Your task to perform on an android device: set an alarm Image 0: 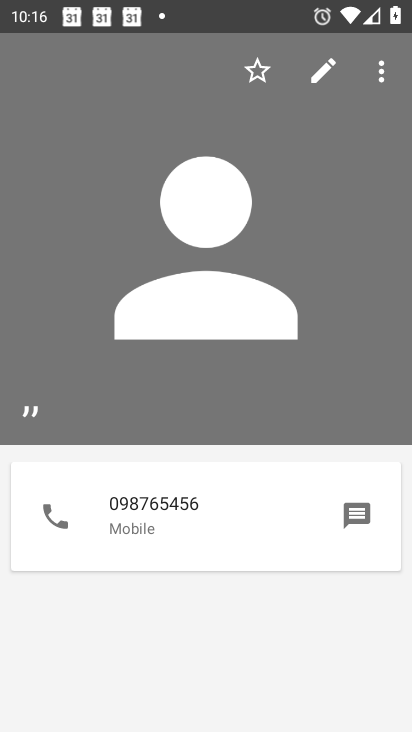
Step 0: press home button
Your task to perform on an android device: set an alarm Image 1: 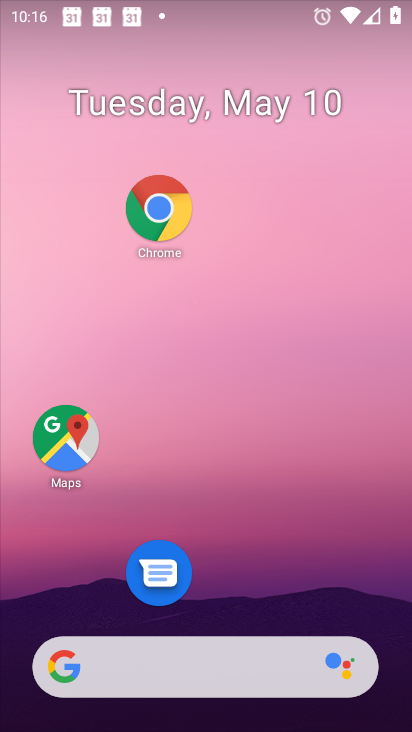
Step 1: drag from (238, 710) to (307, 259)
Your task to perform on an android device: set an alarm Image 2: 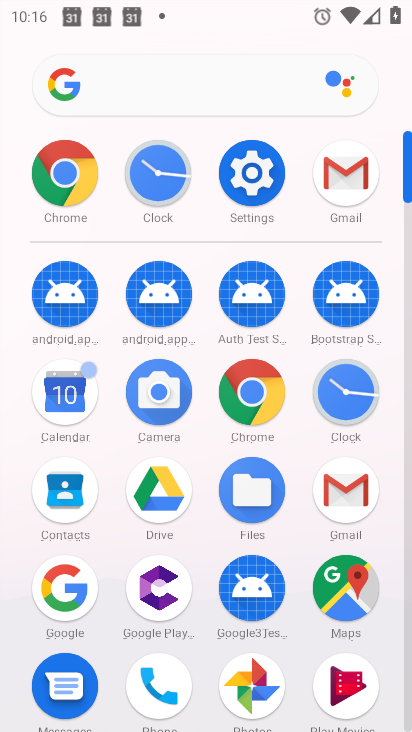
Step 2: click (338, 385)
Your task to perform on an android device: set an alarm Image 3: 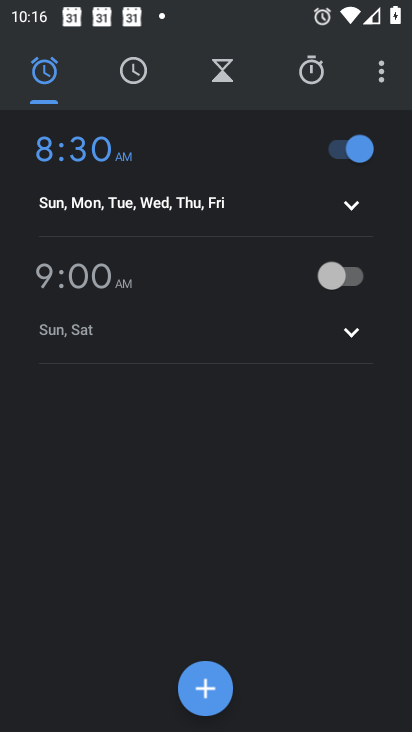
Step 3: click (172, 193)
Your task to perform on an android device: set an alarm Image 4: 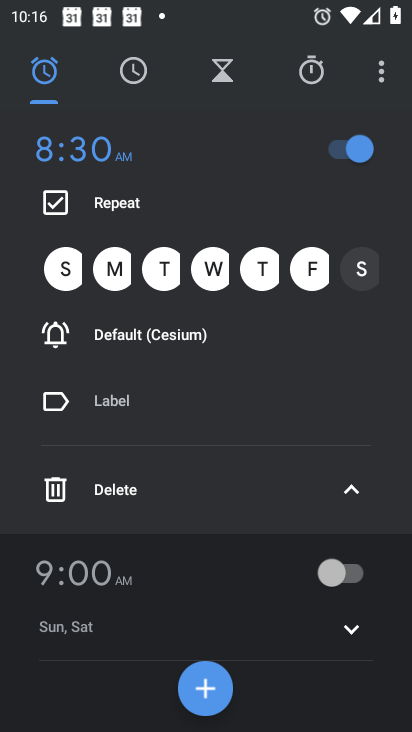
Step 4: click (84, 152)
Your task to perform on an android device: set an alarm Image 5: 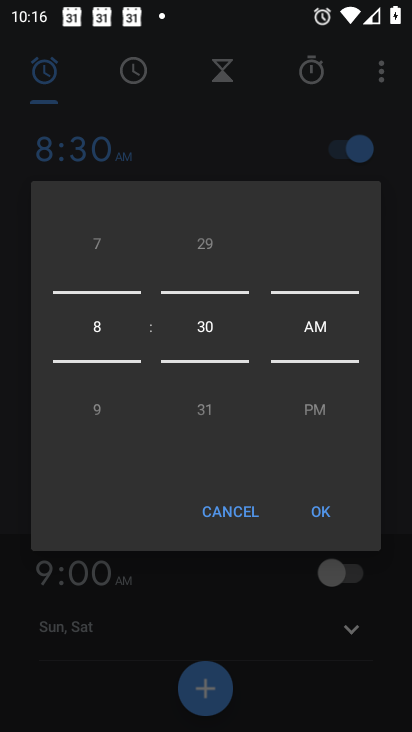
Step 5: click (100, 399)
Your task to perform on an android device: set an alarm Image 6: 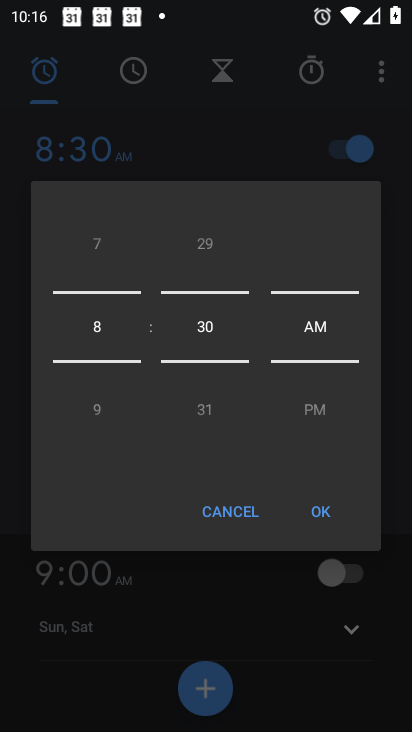
Step 6: drag from (113, 334) to (129, 247)
Your task to perform on an android device: set an alarm Image 7: 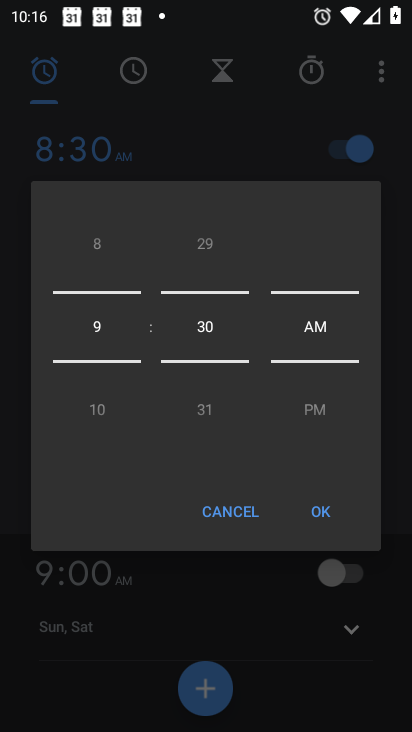
Step 7: drag from (126, 335) to (138, 231)
Your task to perform on an android device: set an alarm Image 8: 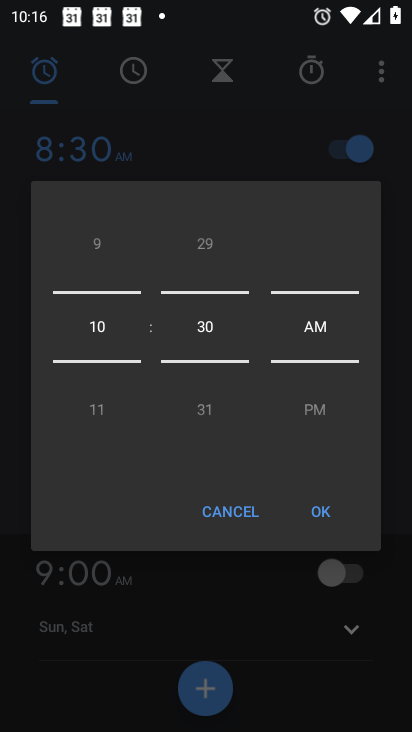
Step 8: click (327, 513)
Your task to perform on an android device: set an alarm Image 9: 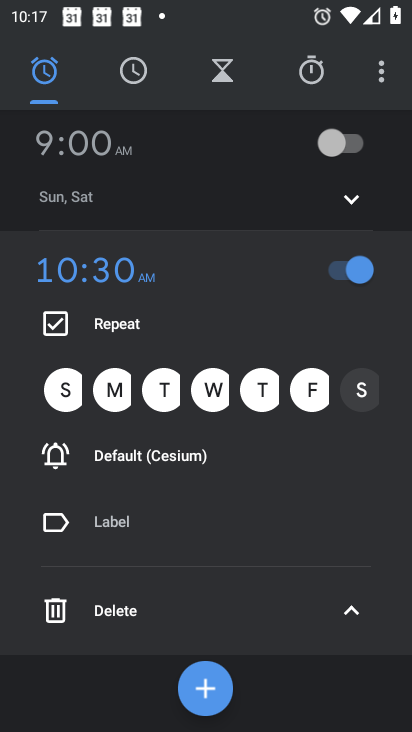
Step 9: task complete